Your task to perform on an android device: change notification settings in the gmail app Image 0: 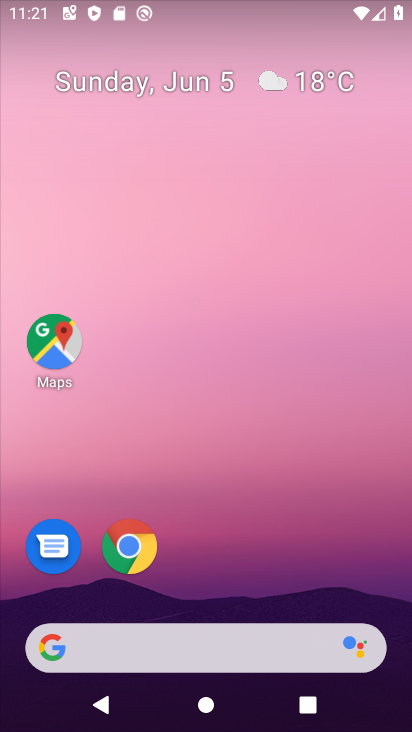
Step 0: drag from (155, 624) to (159, 202)
Your task to perform on an android device: change notification settings in the gmail app Image 1: 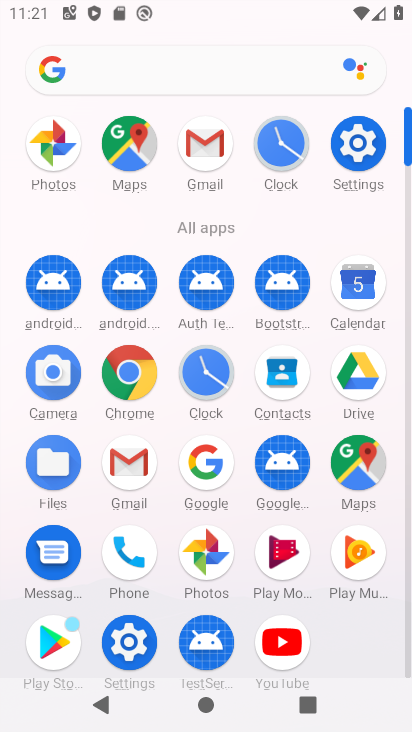
Step 1: click (131, 460)
Your task to perform on an android device: change notification settings in the gmail app Image 2: 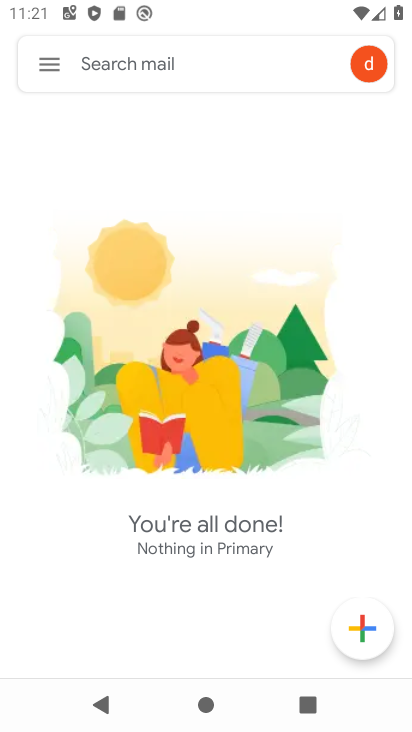
Step 2: click (51, 65)
Your task to perform on an android device: change notification settings in the gmail app Image 3: 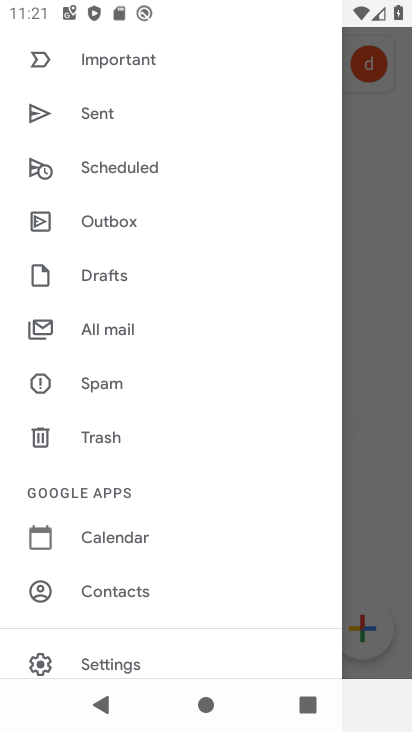
Step 3: click (120, 656)
Your task to perform on an android device: change notification settings in the gmail app Image 4: 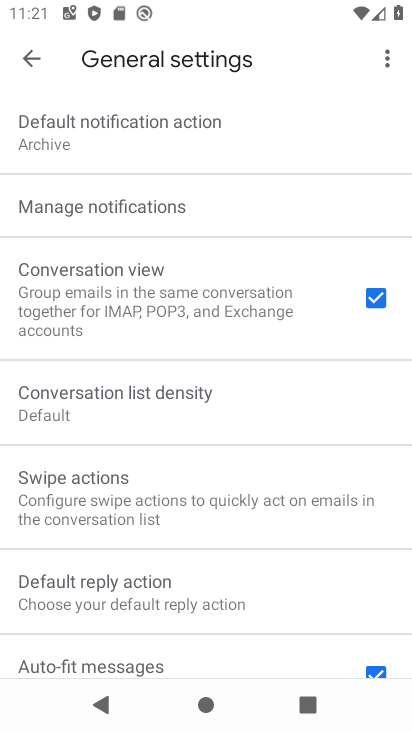
Step 4: click (32, 41)
Your task to perform on an android device: change notification settings in the gmail app Image 5: 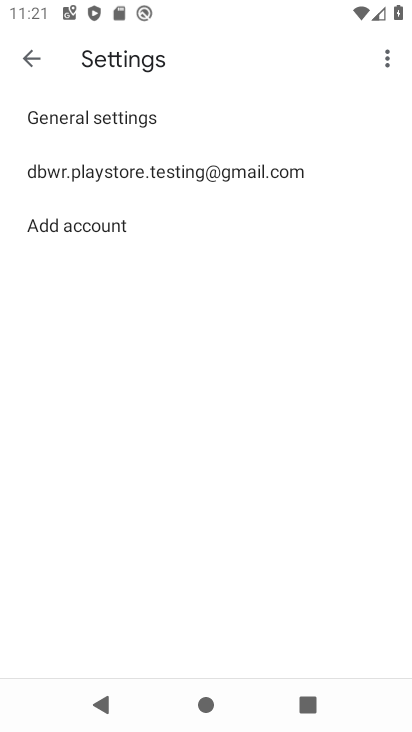
Step 5: click (64, 167)
Your task to perform on an android device: change notification settings in the gmail app Image 6: 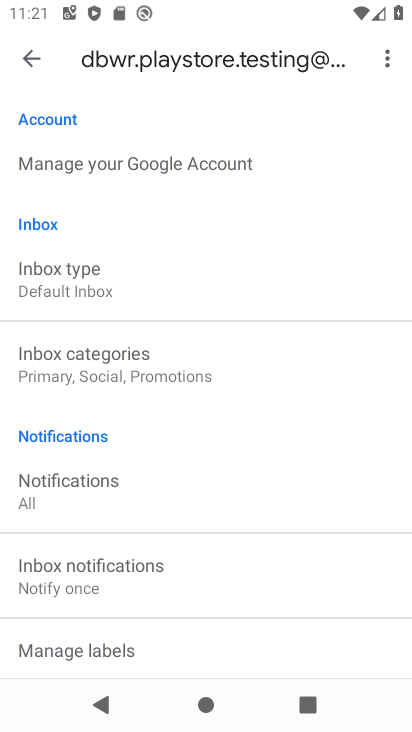
Step 6: click (69, 485)
Your task to perform on an android device: change notification settings in the gmail app Image 7: 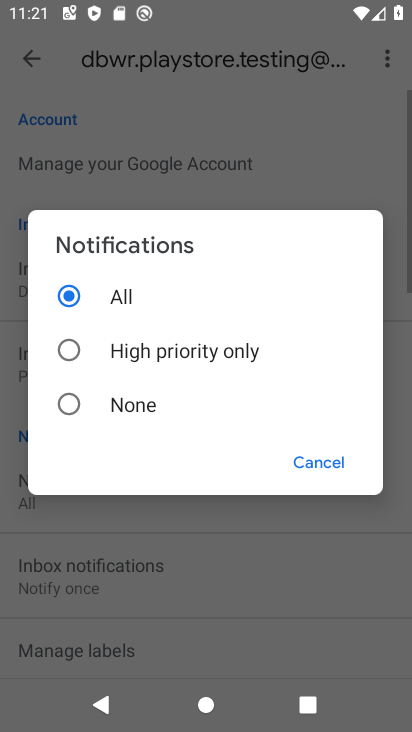
Step 7: click (94, 415)
Your task to perform on an android device: change notification settings in the gmail app Image 8: 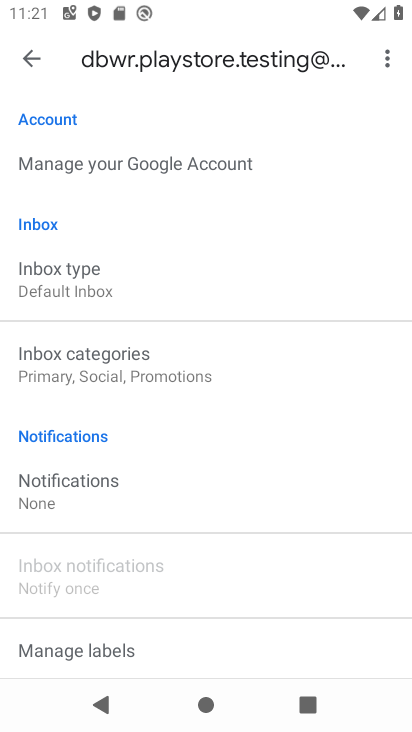
Step 8: task complete